Your task to perform on an android device: toggle sleep mode Image 0: 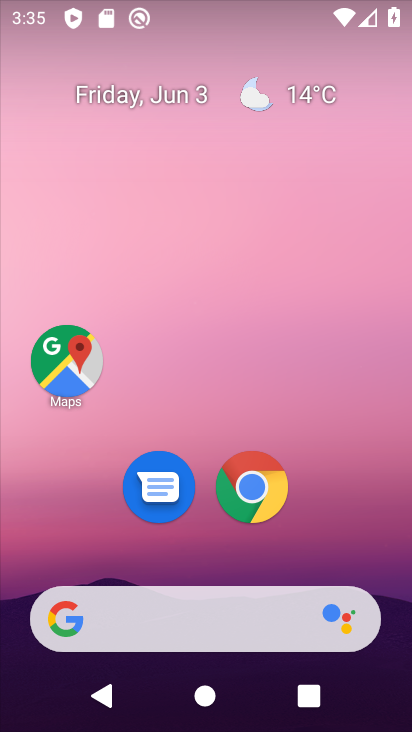
Step 0: drag from (183, 582) to (276, 53)
Your task to perform on an android device: toggle sleep mode Image 1: 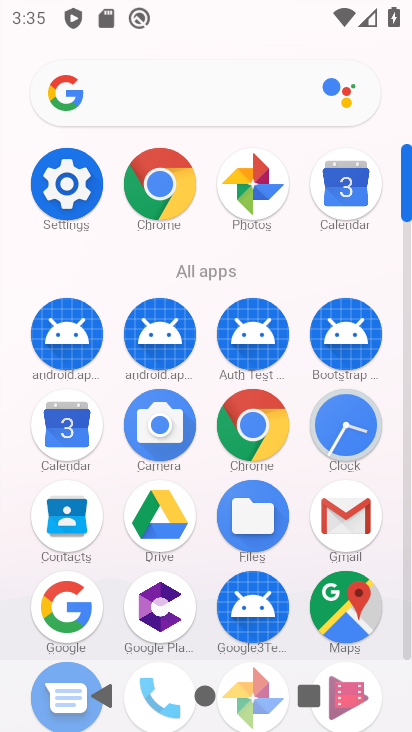
Step 1: click (72, 176)
Your task to perform on an android device: toggle sleep mode Image 2: 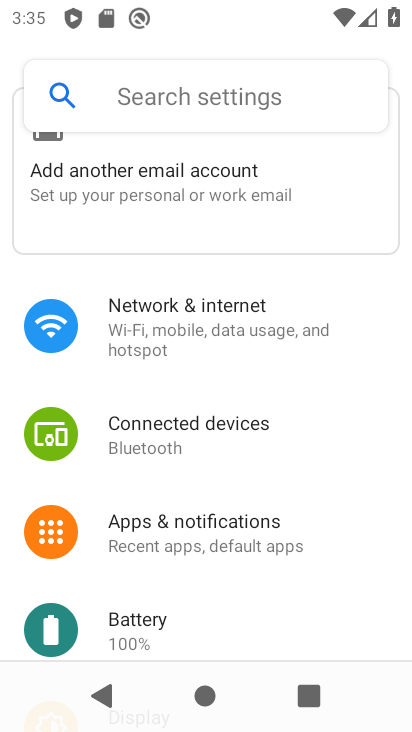
Step 2: click (155, 99)
Your task to perform on an android device: toggle sleep mode Image 3: 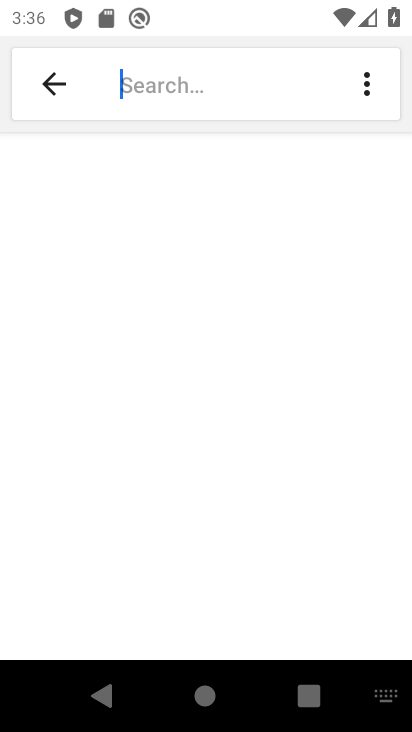
Step 3: type "sleep mode"
Your task to perform on an android device: toggle sleep mode Image 4: 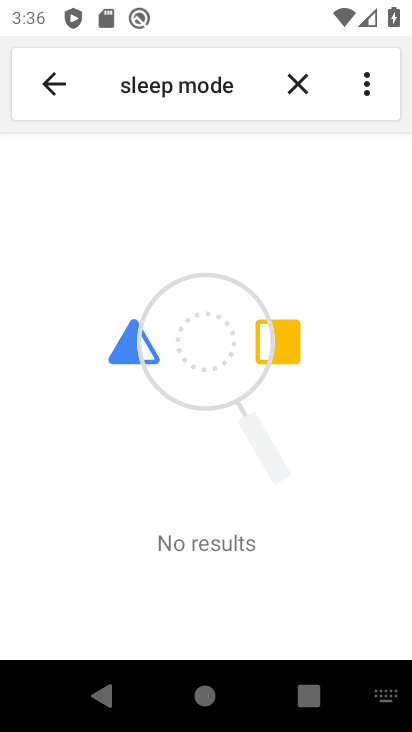
Step 4: task complete